Your task to perform on an android device: Open accessibility settings Image 0: 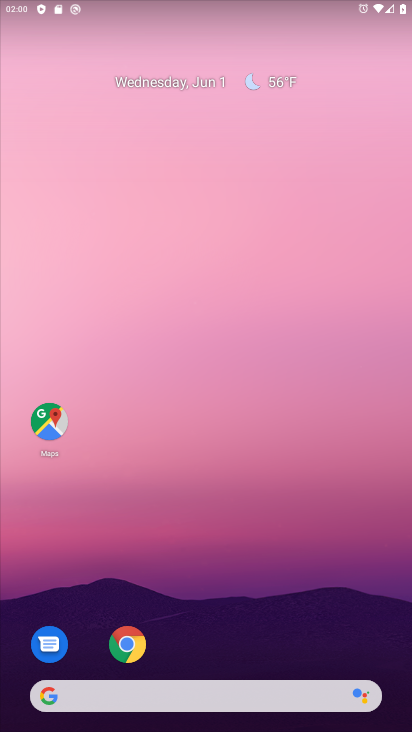
Step 0: drag from (172, 682) to (235, 100)
Your task to perform on an android device: Open accessibility settings Image 1: 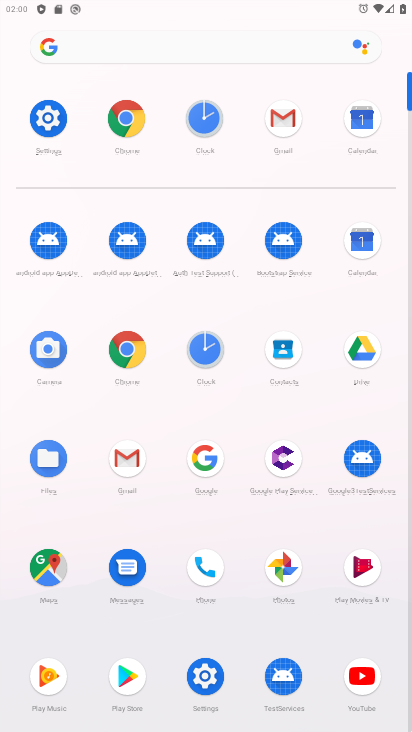
Step 1: click (44, 122)
Your task to perform on an android device: Open accessibility settings Image 2: 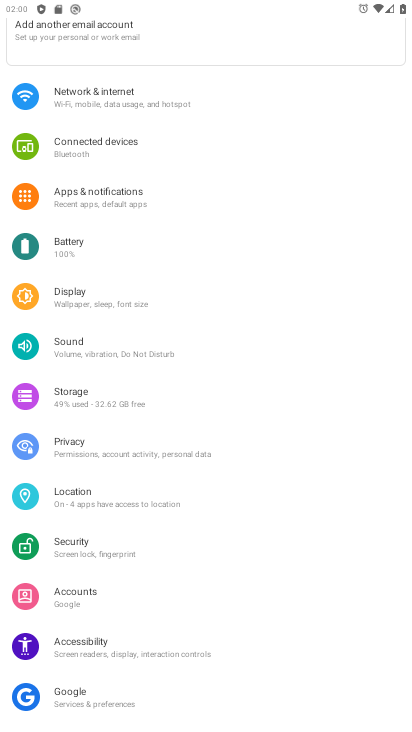
Step 2: click (87, 654)
Your task to perform on an android device: Open accessibility settings Image 3: 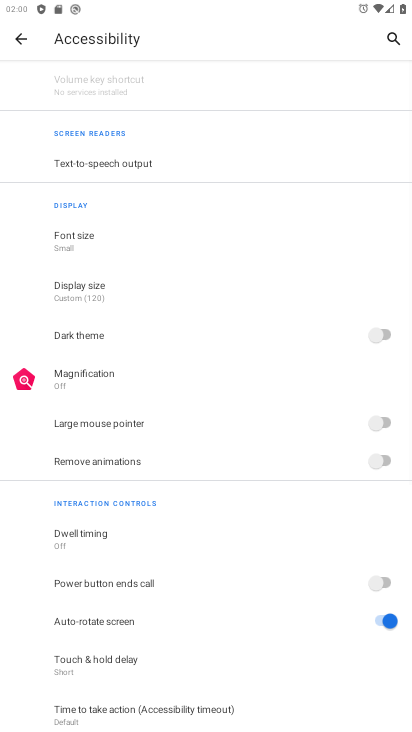
Step 3: task complete